Your task to perform on an android device: turn vacation reply on in the gmail app Image 0: 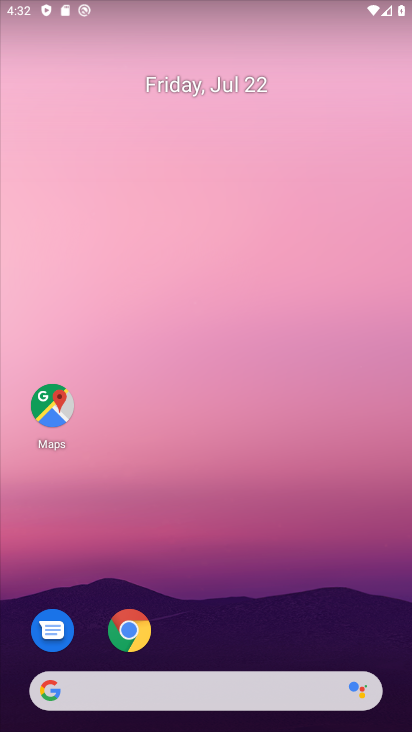
Step 0: drag from (167, 569) to (167, 170)
Your task to perform on an android device: turn vacation reply on in the gmail app Image 1: 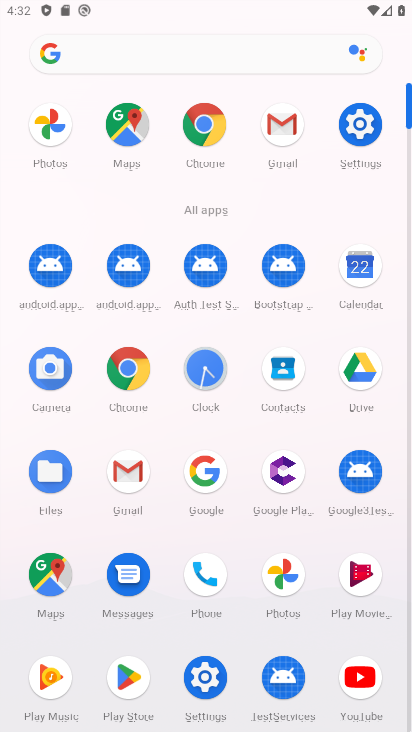
Step 1: click (126, 465)
Your task to perform on an android device: turn vacation reply on in the gmail app Image 2: 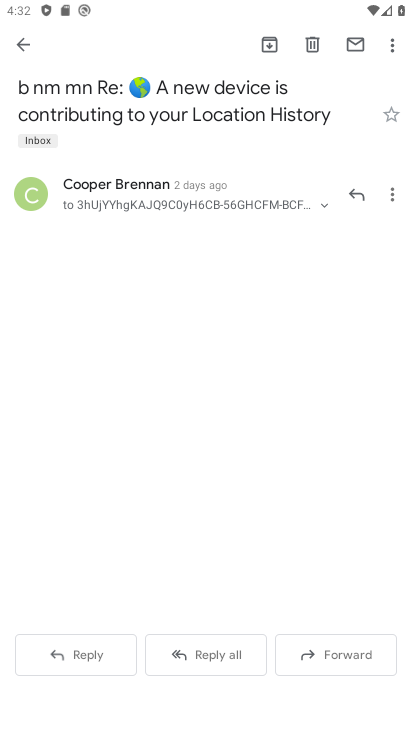
Step 2: click (26, 41)
Your task to perform on an android device: turn vacation reply on in the gmail app Image 3: 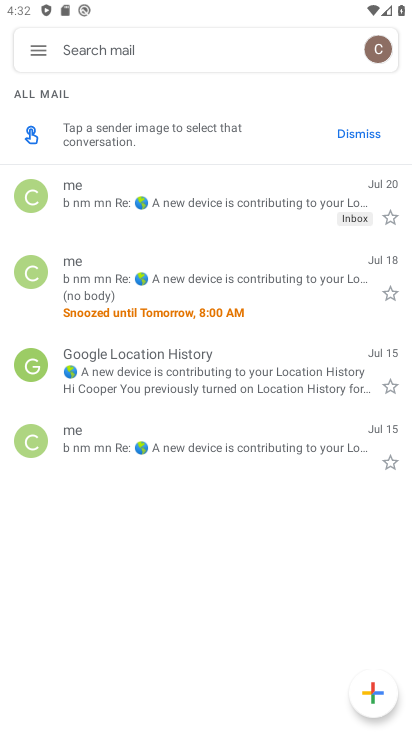
Step 3: click (39, 48)
Your task to perform on an android device: turn vacation reply on in the gmail app Image 4: 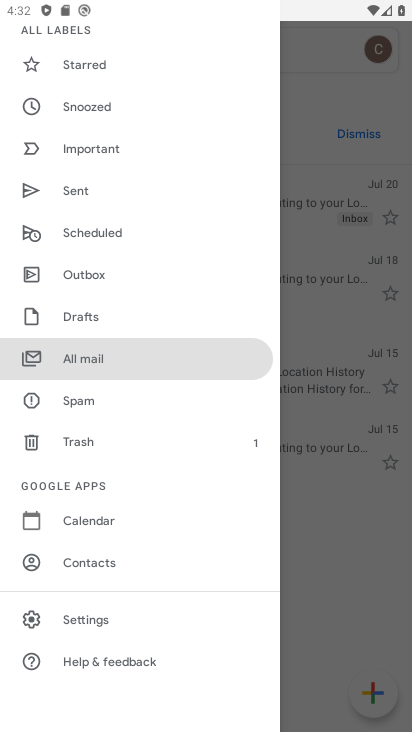
Step 4: click (84, 614)
Your task to perform on an android device: turn vacation reply on in the gmail app Image 5: 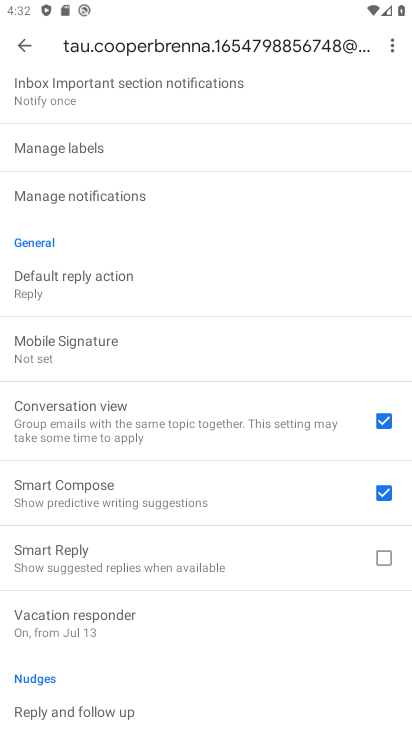
Step 5: click (123, 619)
Your task to perform on an android device: turn vacation reply on in the gmail app Image 6: 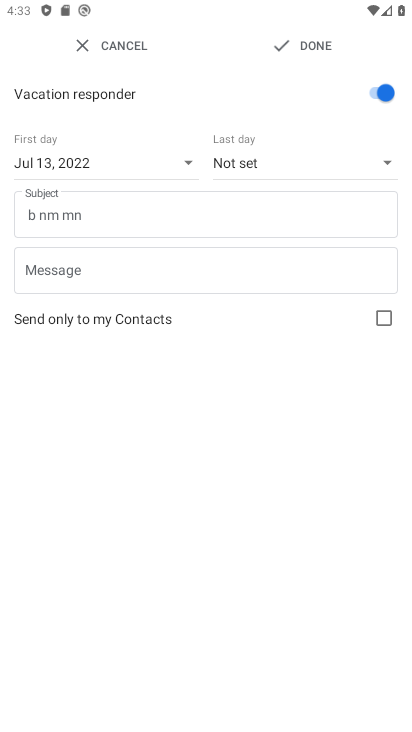
Step 6: click (331, 37)
Your task to perform on an android device: turn vacation reply on in the gmail app Image 7: 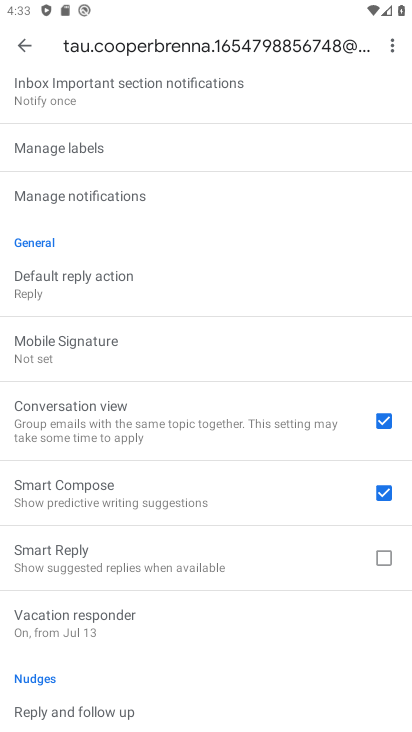
Step 7: task complete